Your task to perform on an android device: search for starred emails in the gmail app Image 0: 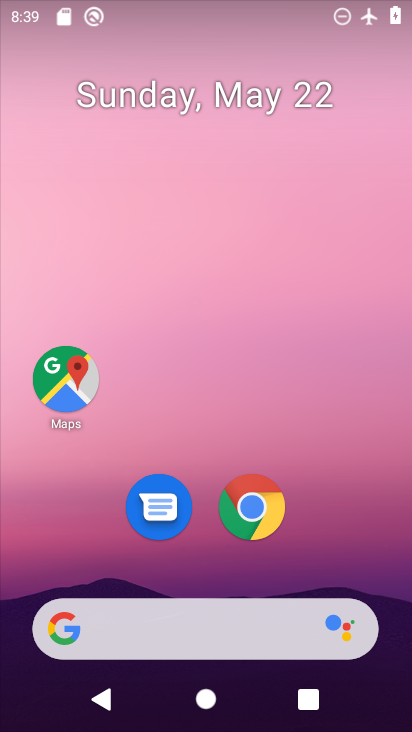
Step 0: drag from (161, 445) to (161, 33)
Your task to perform on an android device: search for starred emails in the gmail app Image 1: 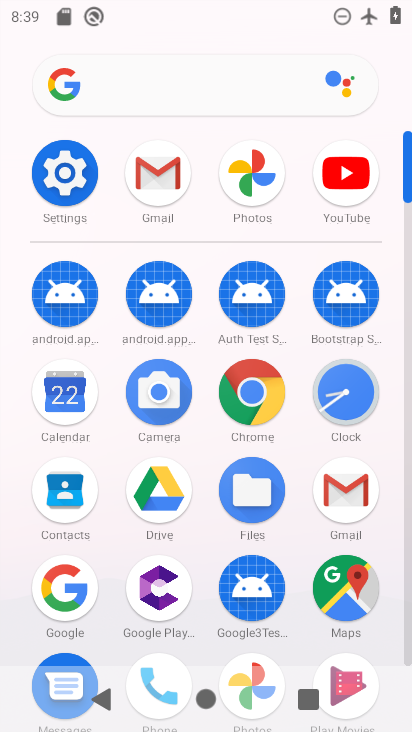
Step 1: click (163, 189)
Your task to perform on an android device: search for starred emails in the gmail app Image 2: 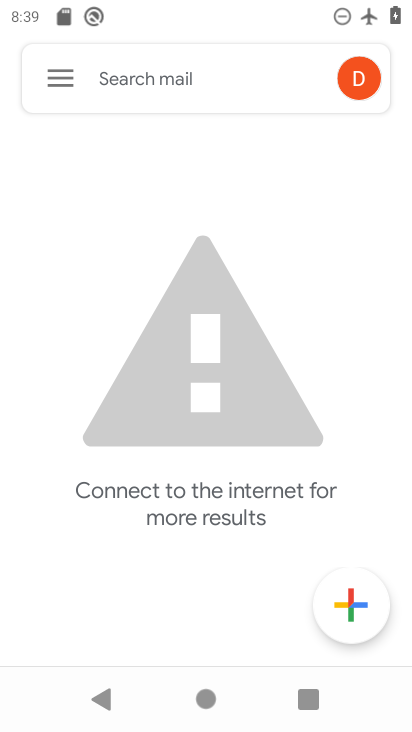
Step 2: task complete